Your task to perform on an android device: Open Google Chrome and open the bookmarks view Image 0: 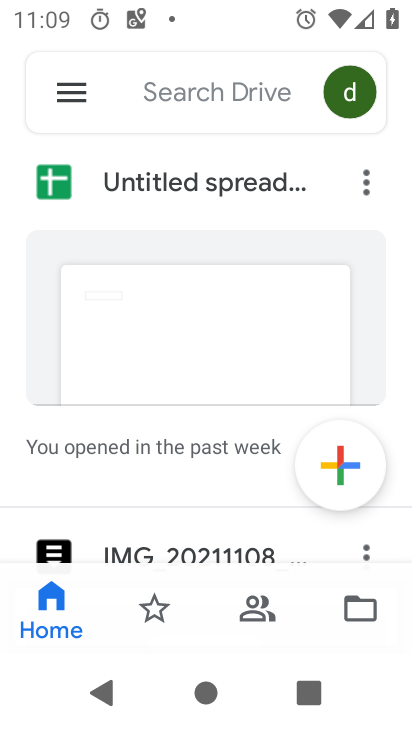
Step 0: press home button
Your task to perform on an android device: Open Google Chrome and open the bookmarks view Image 1: 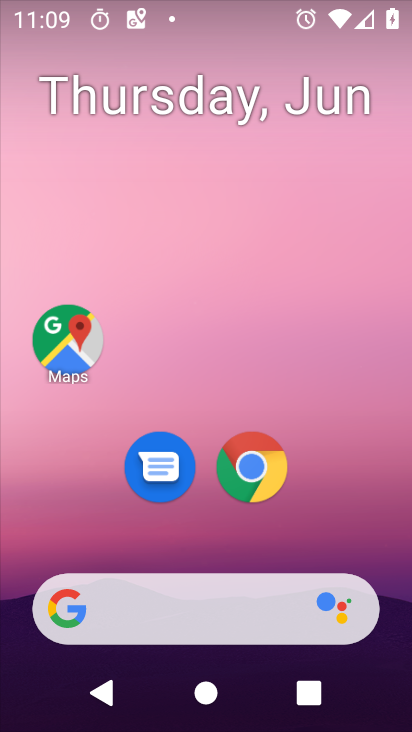
Step 1: click (245, 478)
Your task to perform on an android device: Open Google Chrome and open the bookmarks view Image 2: 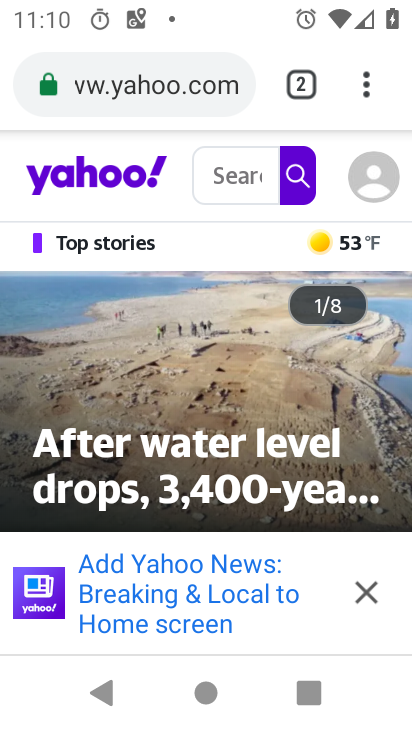
Step 2: click (359, 95)
Your task to perform on an android device: Open Google Chrome and open the bookmarks view Image 3: 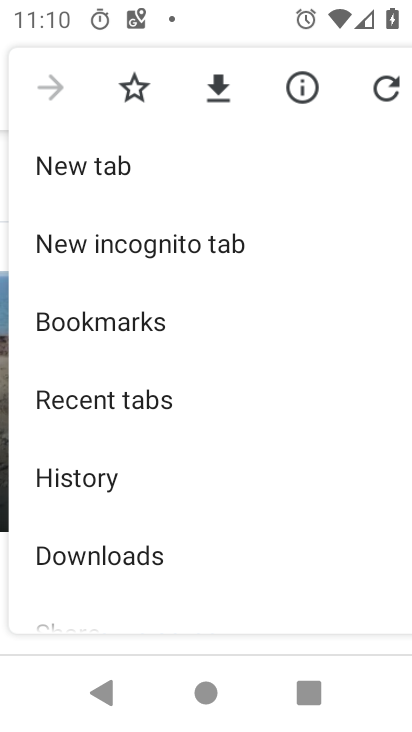
Step 3: drag from (9, 546) to (227, 129)
Your task to perform on an android device: Open Google Chrome and open the bookmarks view Image 4: 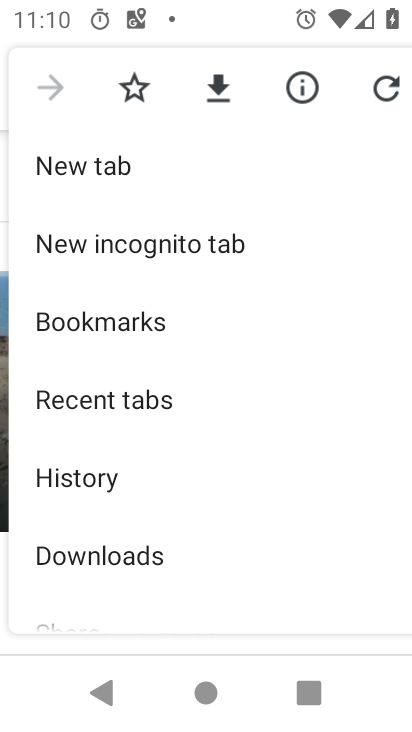
Step 4: drag from (73, 610) to (291, 212)
Your task to perform on an android device: Open Google Chrome and open the bookmarks view Image 5: 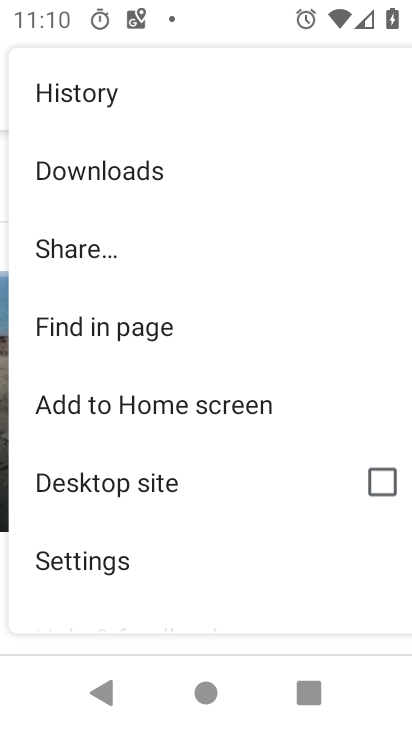
Step 5: drag from (272, 154) to (268, 622)
Your task to perform on an android device: Open Google Chrome and open the bookmarks view Image 6: 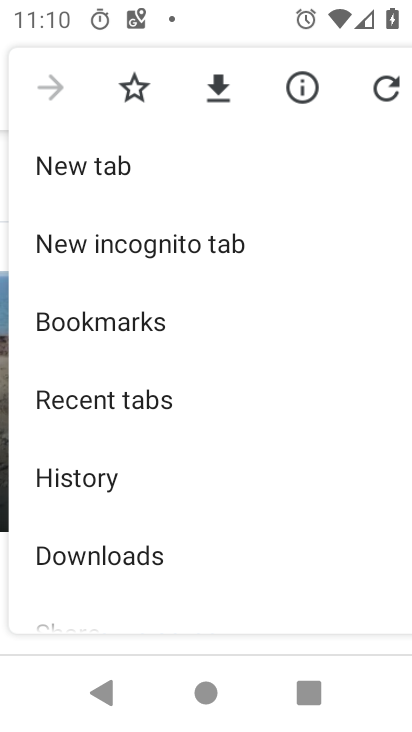
Step 6: click (137, 322)
Your task to perform on an android device: Open Google Chrome and open the bookmarks view Image 7: 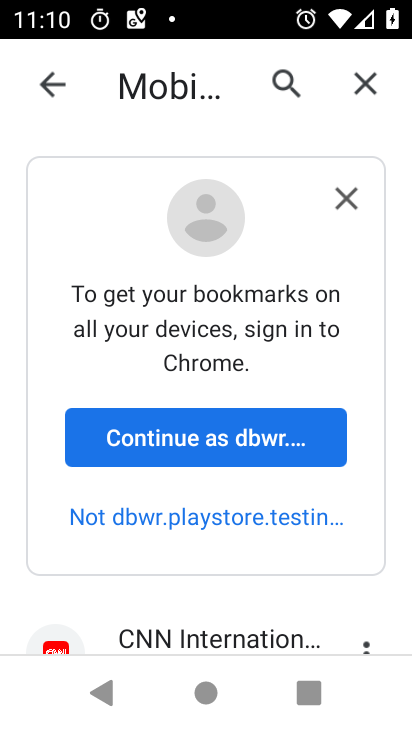
Step 7: click (344, 188)
Your task to perform on an android device: Open Google Chrome and open the bookmarks view Image 8: 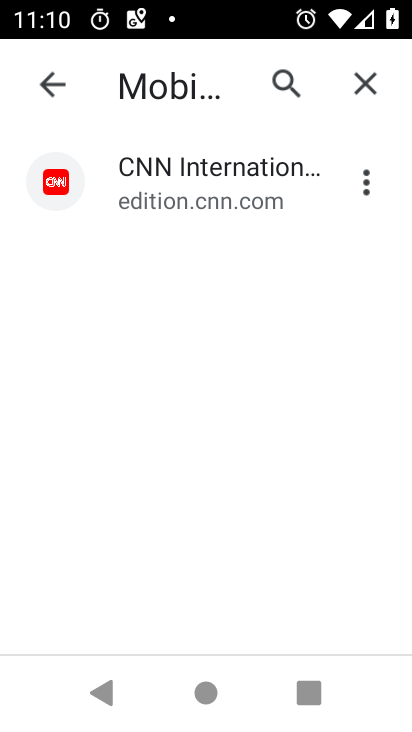
Step 8: task complete